Your task to perform on an android device: refresh tabs in the chrome app Image 0: 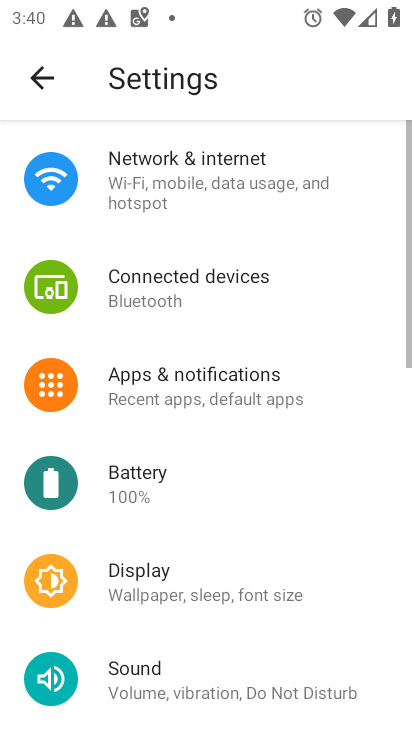
Step 0: press home button
Your task to perform on an android device: refresh tabs in the chrome app Image 1: 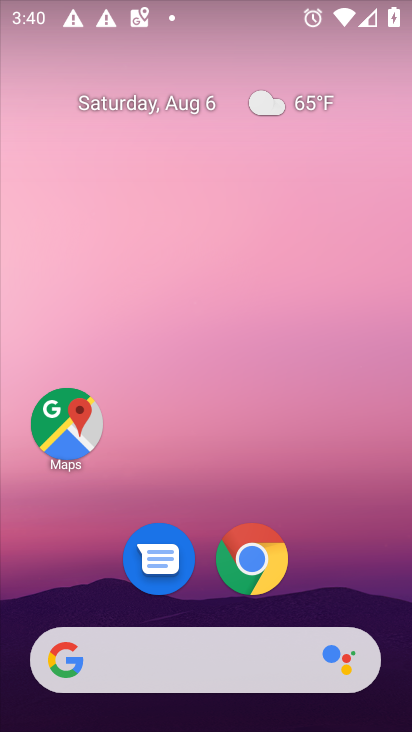
Step 1: click (257, 551)
Your task to perform on an android device: refresh tabs in the chrome app Image 2: 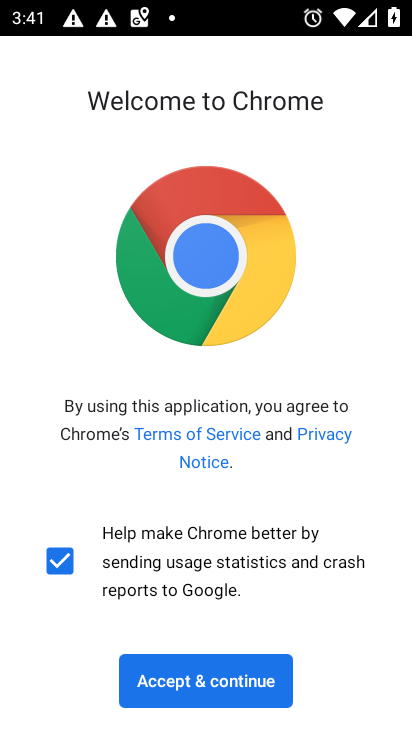
Step 2: click (266, 667)
Your task to perform on an android device: refresh tabs in the chrome app Image 3: 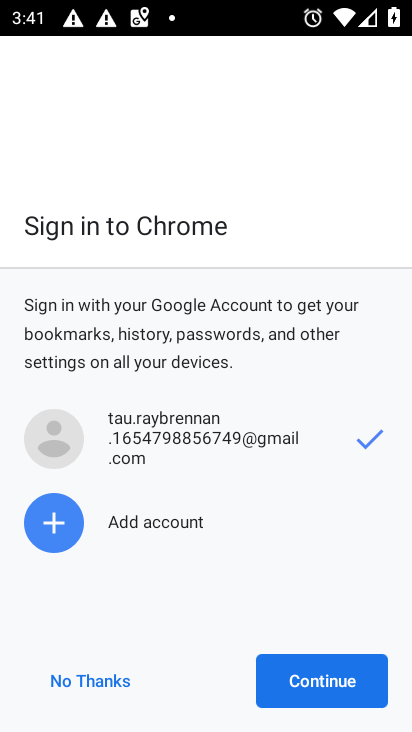
Step 3: click (291, 674)
Your task to perform on an android device: refresh tabs in the chrome app Image 4: 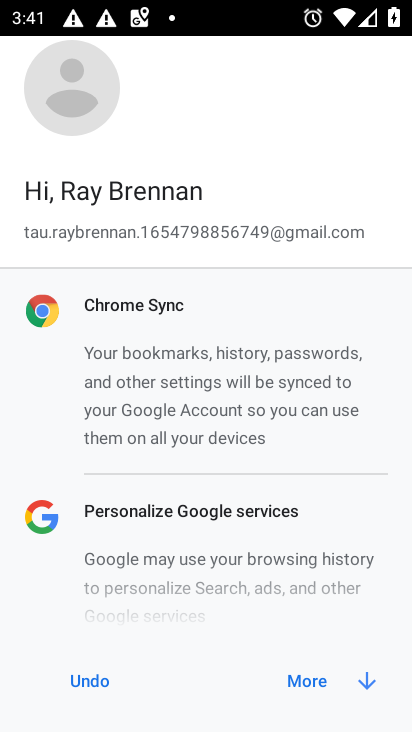
Step 4: click (291, 674)
Your task to perform on an android device: refresh tabs in the chrome app Image 5: 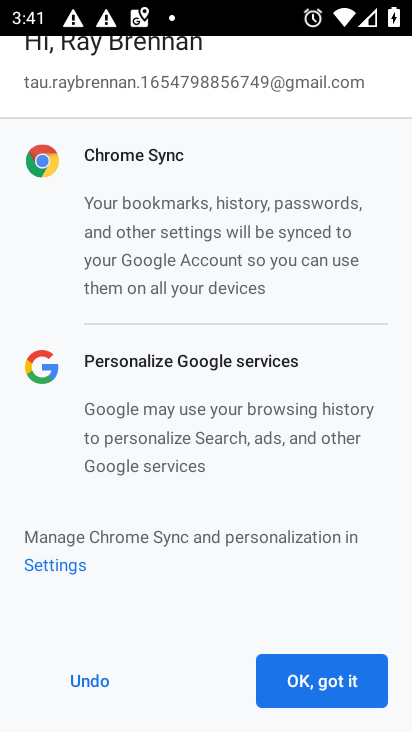
Step 5: click (291, 674)
Your task to perform on an android device: refresh tabs in the chrome app Image 6: 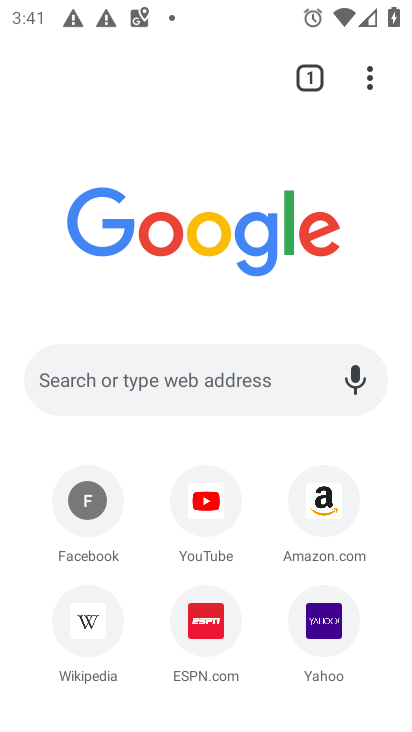
Step 6: click (371, 74)
Your task to perform on an android device: refresh tabs in the chrome app Image 7: 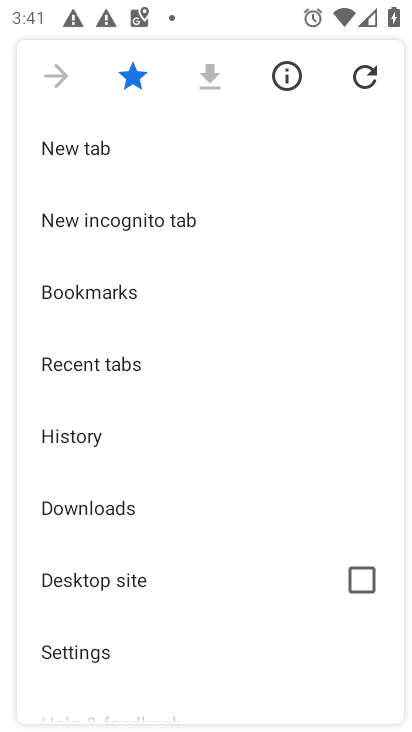
Step 7: click (359, 77)
Your task to perform on an android device: refresh tabs in the chrome app Image 8: 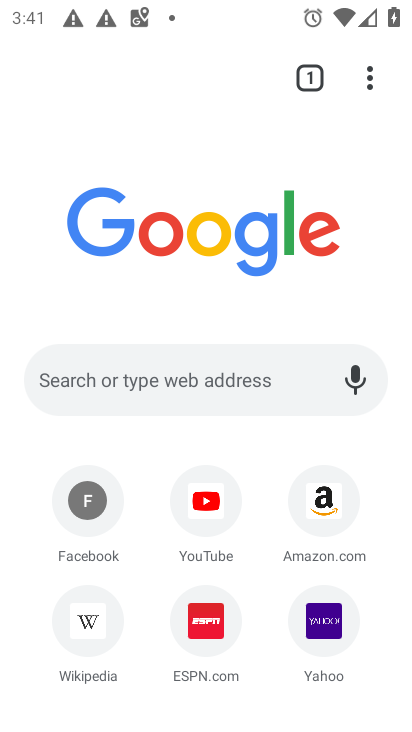
Step 8: task complete